Your task to perform on an android device: Do I have any events today? Image 0: 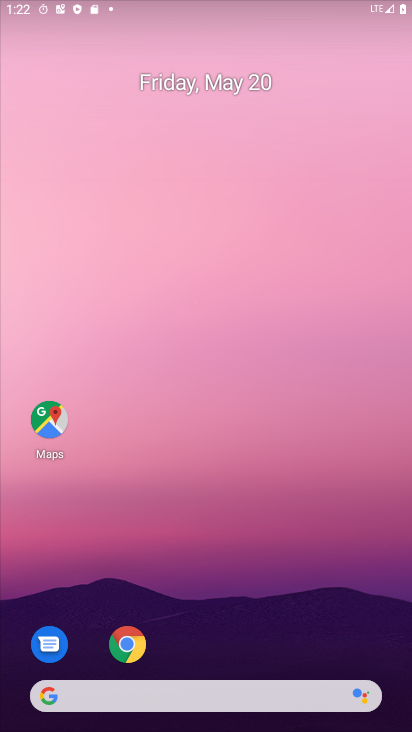
Step 0: drag from (255, 552) to (307, 51)
Your task to perform on an android device: Do I have any events today? Image 1: 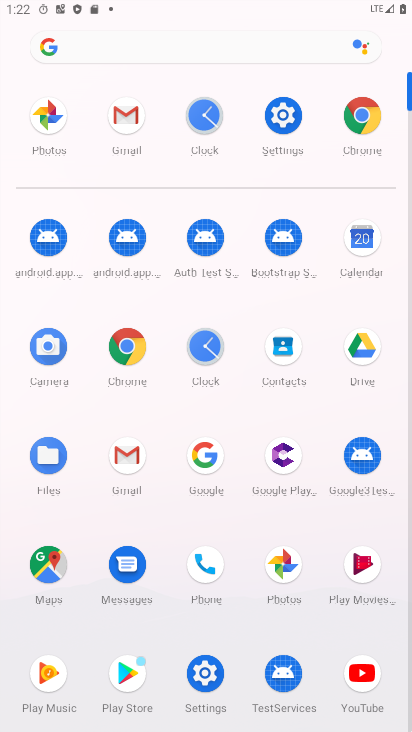
Step 1: click (364, 244)
Your task to perform on an android device: Do I have any events today? Image 2: 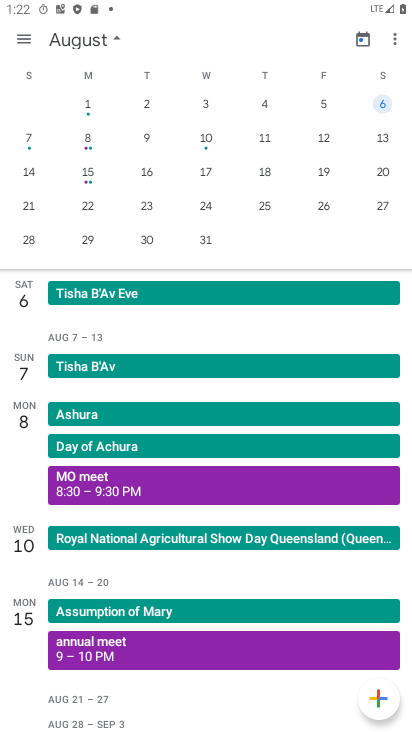
Step 2: task complete